Your task to perform on an android device: Open Google Chrome Image 0: 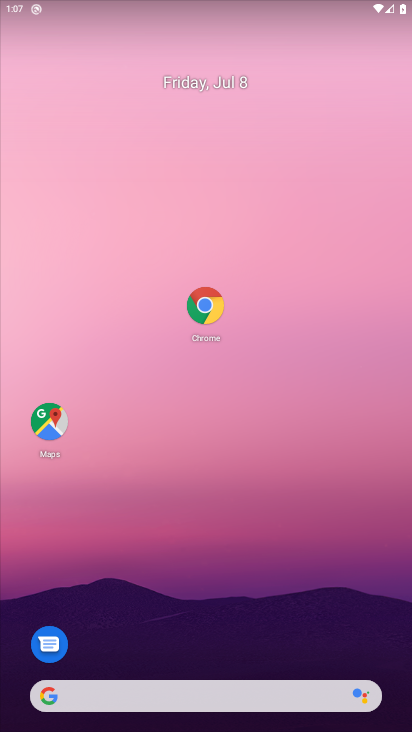
Step 0: drag from (135, 632) to (148, 241)
Your task to perform on an android device: Open Google Chrome Image 1: 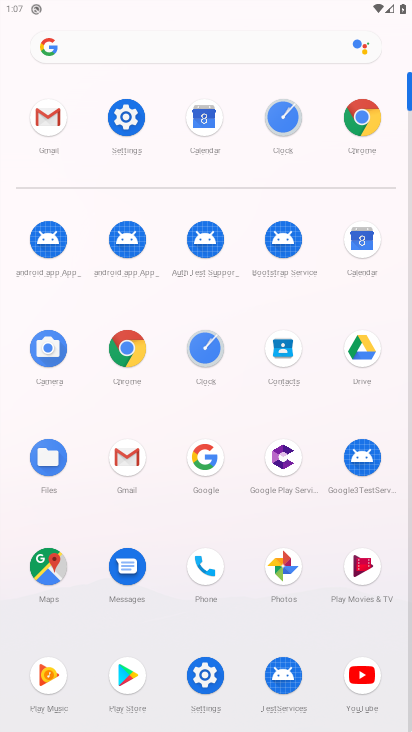
Step 1: click (123, 351)
Your task to perform on an android device: Open Google Chrome Image 2: 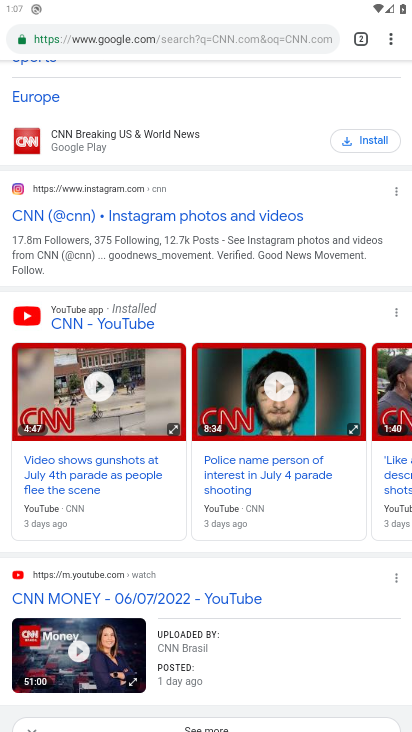
Step 2: task complete